Your task to perform on an android device: search for starred emails in the gmail app Image 0: 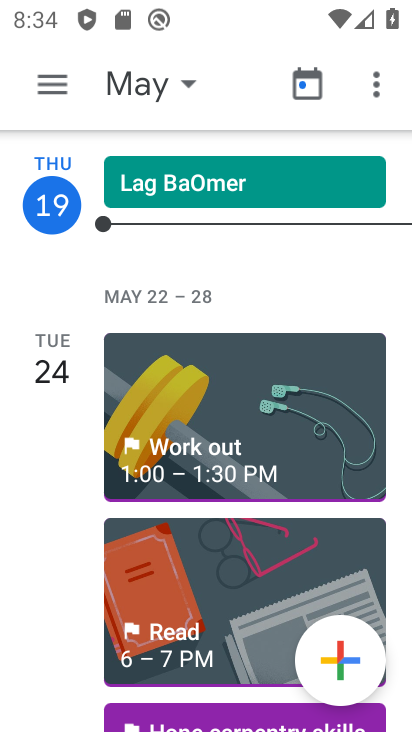
Step 0: press home button
Your task to perform on an android device: search for starred emails in the gmail app Image 1: 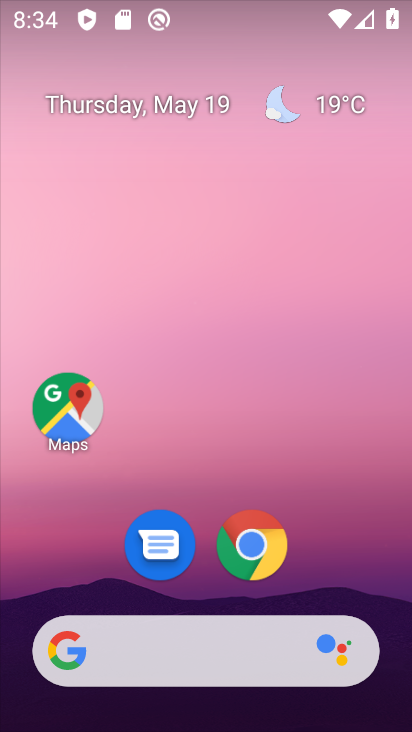
Step 1: drag from (297, 426) to (295, 80)
Your task to perform on an android device: search for starred emails in the gmail app Image 2: 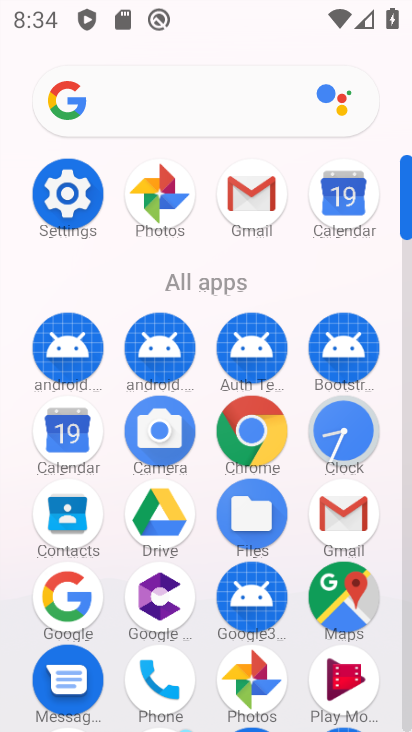
Step 2: click (234, 214)
Your task to perform on an android device: search for starred emails in the gmail app Image 3: 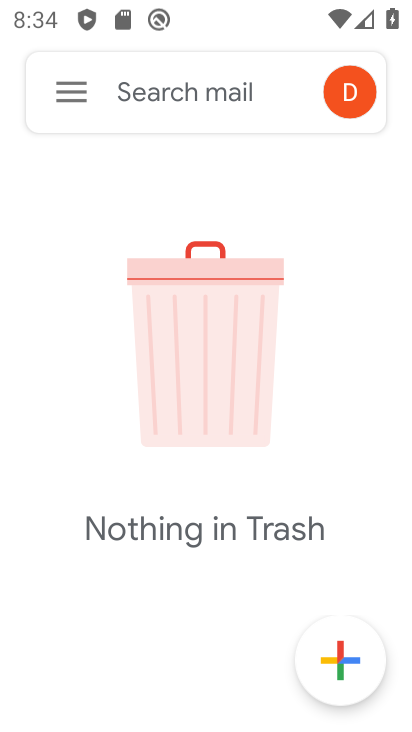
Step 3: click (73, 107)
Your task to perform on an android device: search for starred emails in the gmail app Image 4: 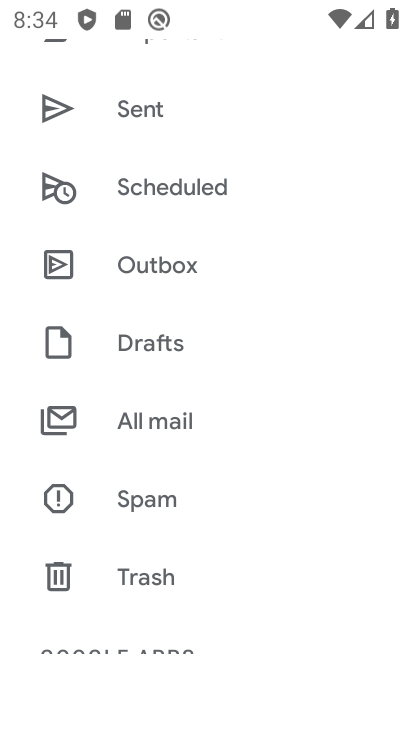
Step 4: drag from (167, 222) to (168, 428)
Your task to perform on an android device: search for starred emails in the gmail app Image 5: 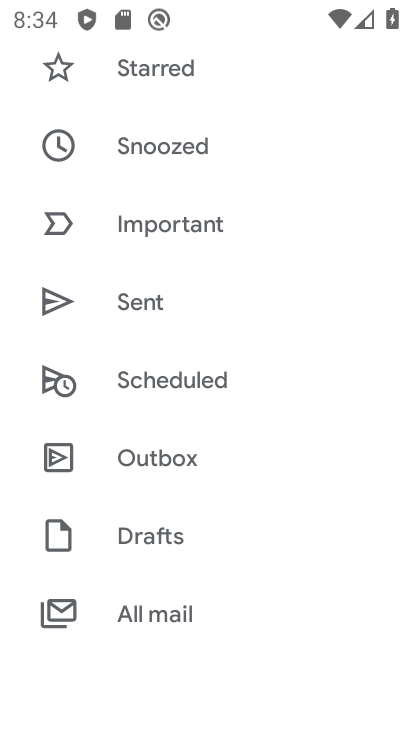
Step 5: click (127, 81)
Your task to perform on an android device: search for starred emails in the gmail app Image 6: 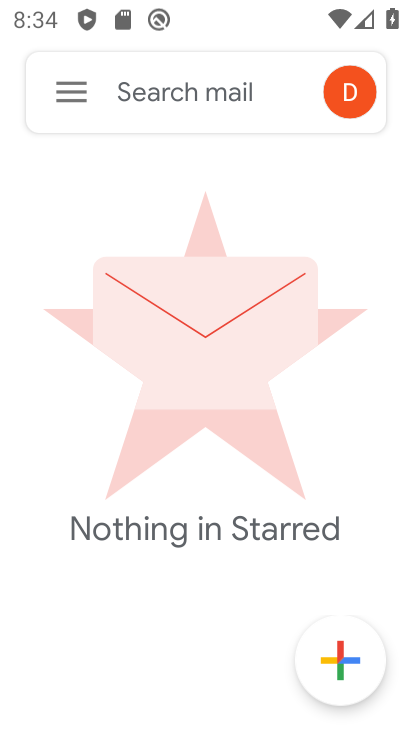
Step 6: task complete